Your task to perform on an android device: When is my next appointment? Image 0: 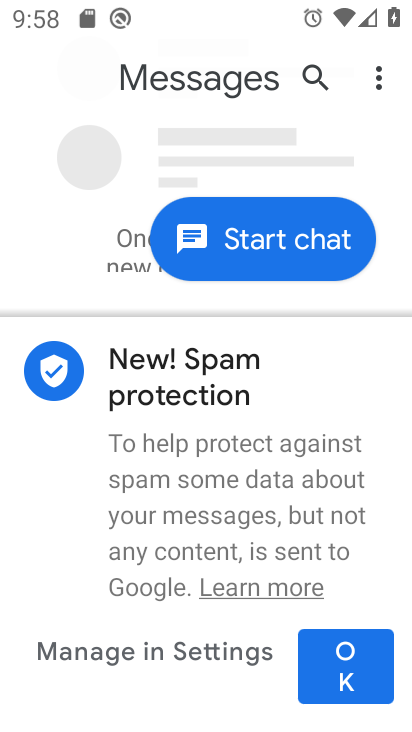
Step 0: press home button
Your task to perform on an android device: When is my next appointment? Image 1: 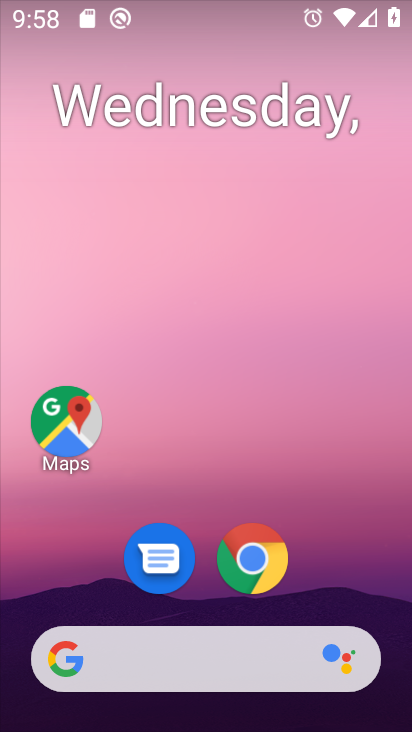
Step 1: drag from (334, 581) to (364, 96)
Your task to perform on an android device: When is my next appointment? Image 2: 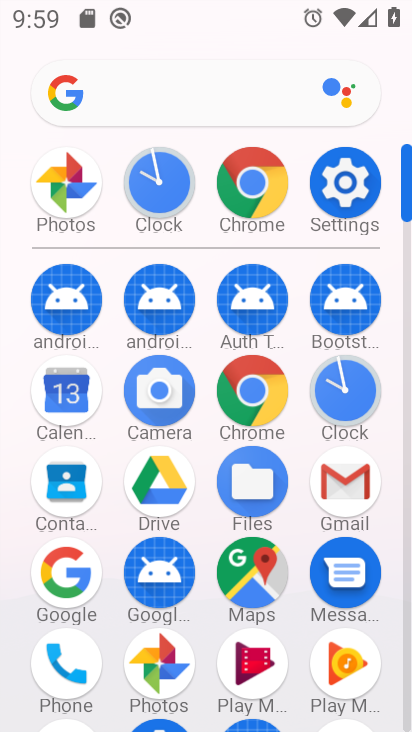
Step 2: click (74, 400)
Your task to perform on an android device: When is my next appointment? Image 3: 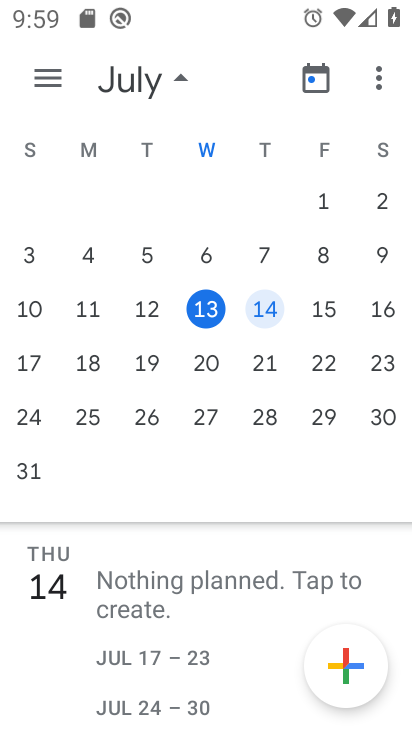
Step 3: task complete